Your task to perform on an android device: turn on javascript in the chrome app Image 0: 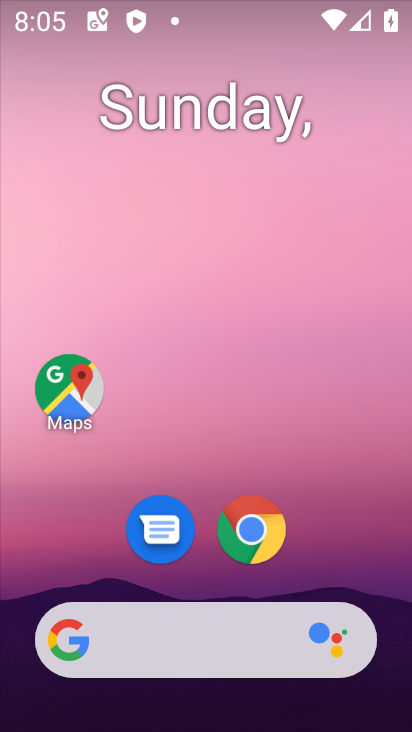
Step 0: drag from (349, 518) to (349, 54)
Your task to perform on an android device: turn on javascript in the chrome app Image 1: 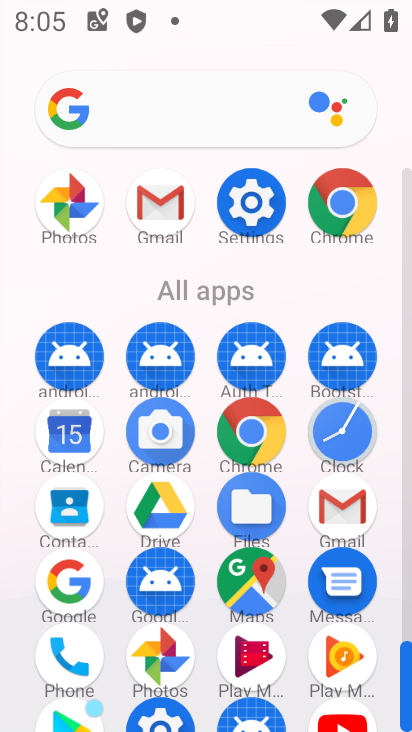
Step 1: click (332, 205)
Your task to perform on an android device: turn on javascript in the chrome app Image 2: 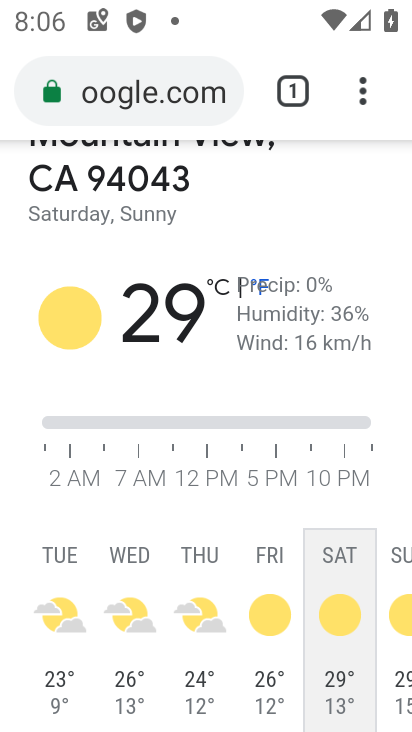
Step 2: drag from (367, 104) to (210, 570)
Your task to perform on an android device: turn on javascript in the chrome app Image 3: 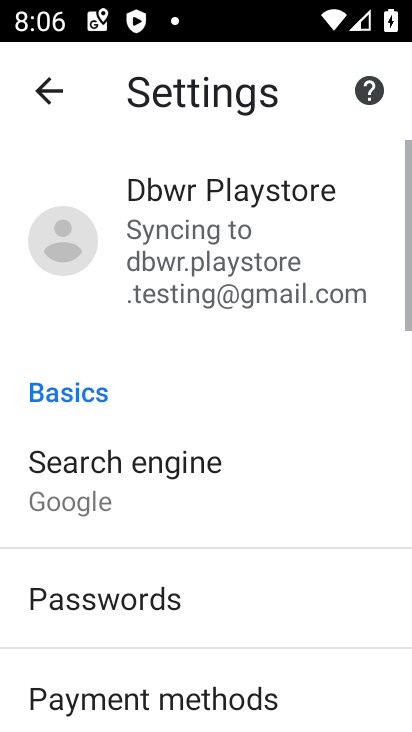
Step 3: drag from (290, 682) to (304, 279)
Your task to perform on an android device: turn on javascript in the chrome app Image 4: 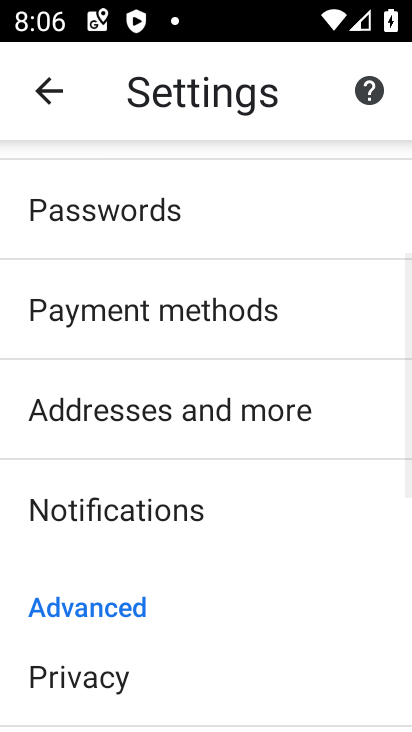
Step 4: drag from (340, 621) to (326, 224)
Your task to perform on an android device: turn on javascript in the chrome app Image 5: 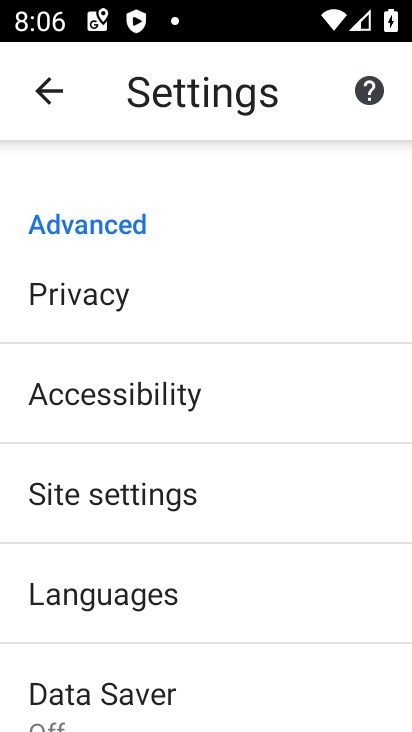
Step 5: drag from (243, 666) to (261, 306)
Your task to perform on an android device: turn on javascript in the chrome app Image 6: 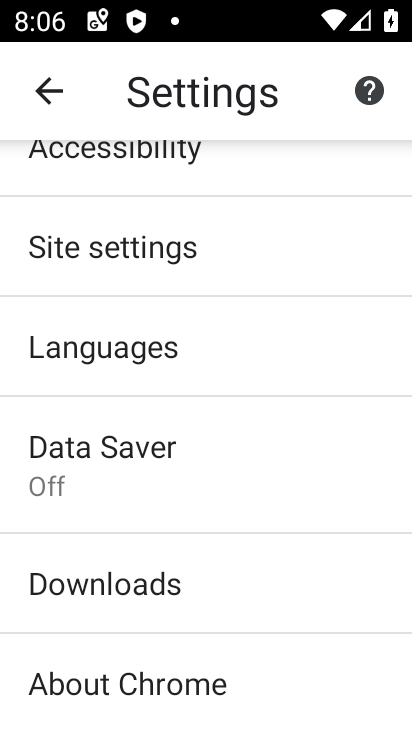
Step 6: click (202, 265)
Your task to perform on an android device: turn on javascript in the chrome app Image 7: 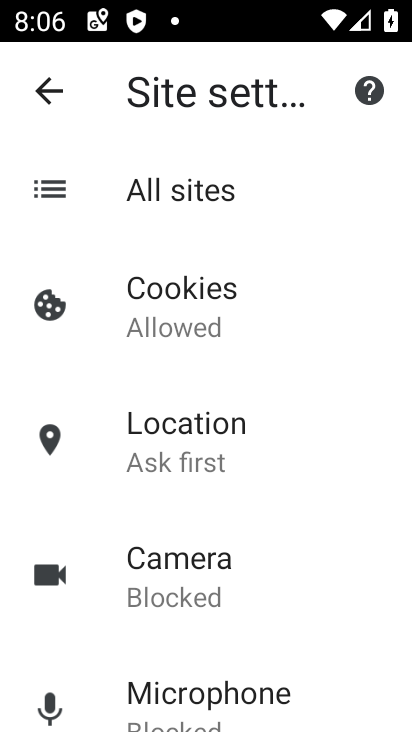
Step 7: drag from (273, 645) to (239, 232)
Your task to perform on an android device: turn on javascript in the chrome app Image 8: 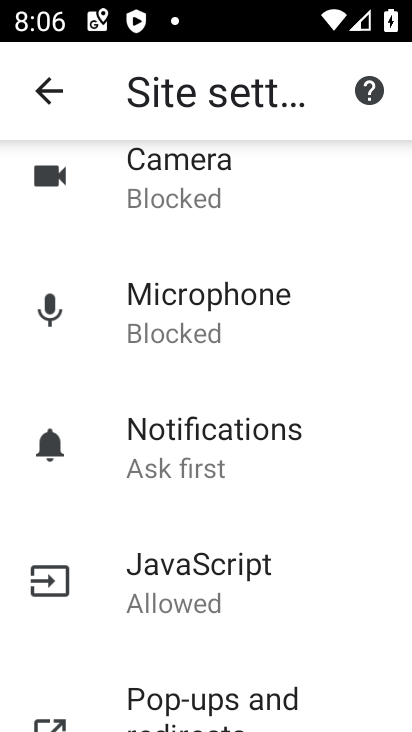
Step 8: click (236, 557)
Your task to perform on an android device: turn on javascript in the chrome app Image 9: 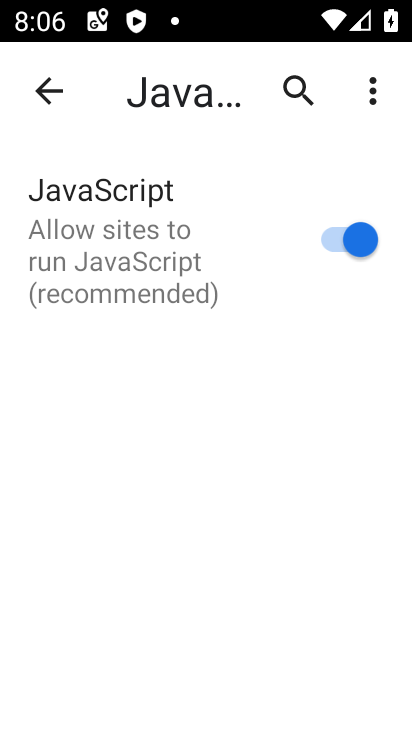
Step 9: task complete